Your task to perform on an android device: open chrome privacy settings Image 0: 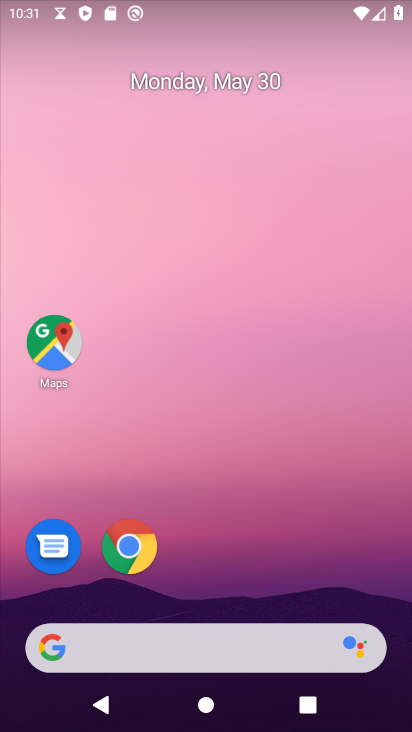
Step 0: drag from (207, 604) to (223, 12)
Your task to perform on an android device: open chrome privacy settings Image 1: 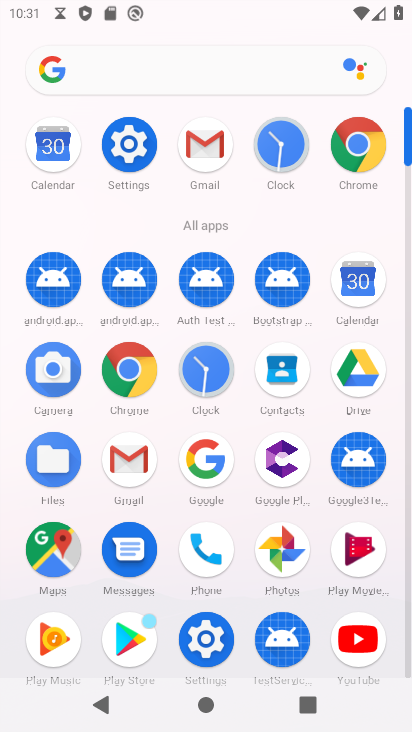
Step 1: click (126, 140)
Your task to perform on an android device: open chrome privacy settings Image 2: 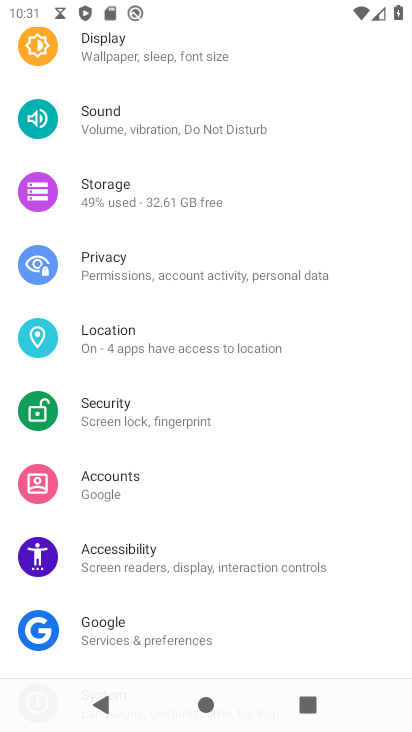
Step 2: click (142, 251)
Your task to perform on an android device: open chrome privacy settings Image 3: 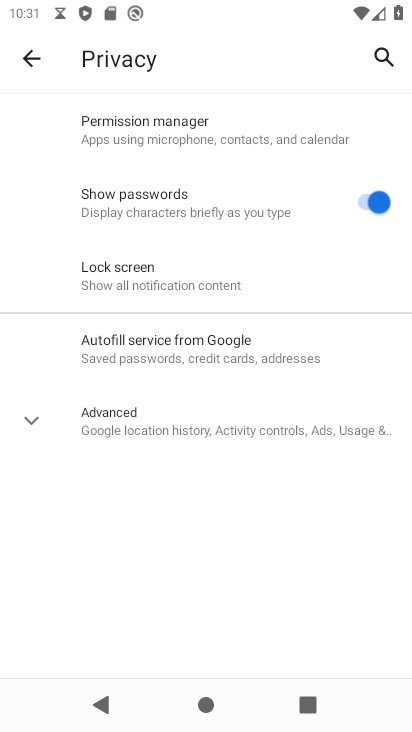
Step 3: click (30, 410)
Your task to perform on an android device: open chrome privacy settings Image 4: 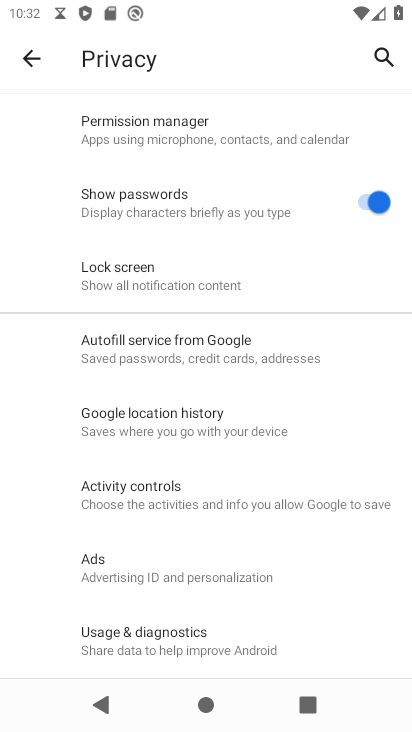
Step 4: task complete